Your task to perform on an android device: change timer sound Image 0: 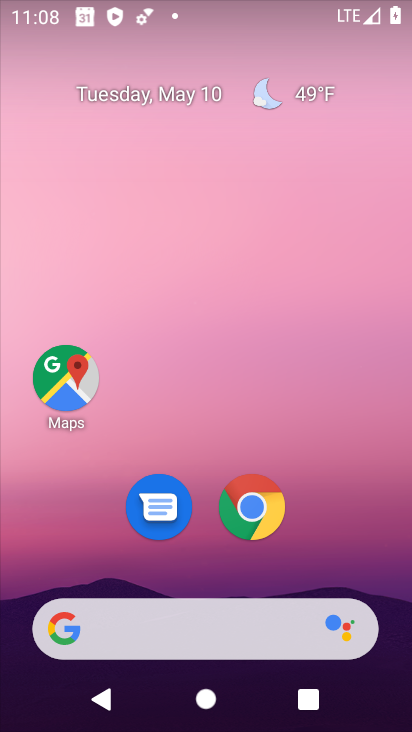
Step 0: drag from (334, 571) to (380, 103)
Your task to perform on an android device: change timer sound Image 1: 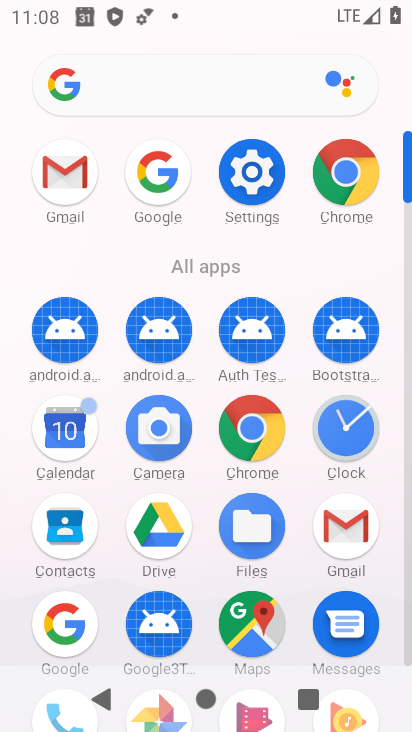
Step 1: click (341, 425)
Your task to perform on an android device: change timer sound Image 2: 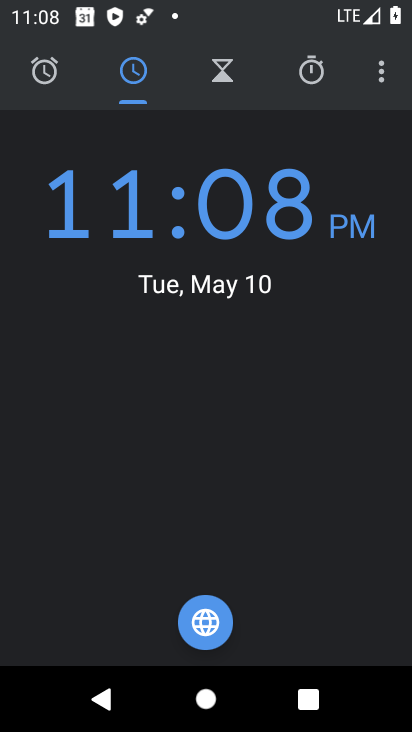
Step 2: click (375, 69)
Your task to perform on an android device: change timer sound Image 3: 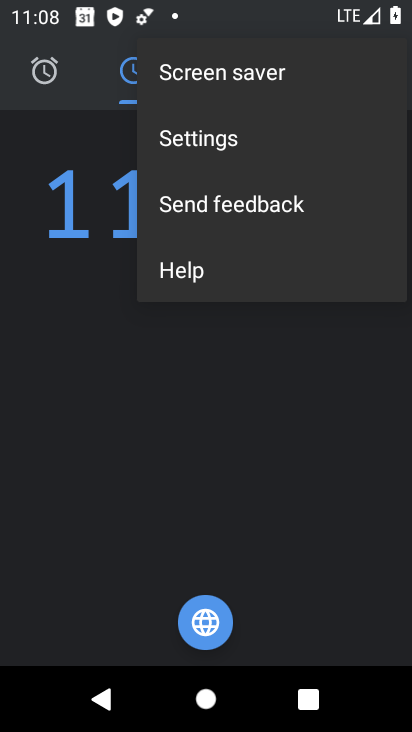
Step 3: click (243, 134)
Your task to perform on an android device: change timer sound Image 4: 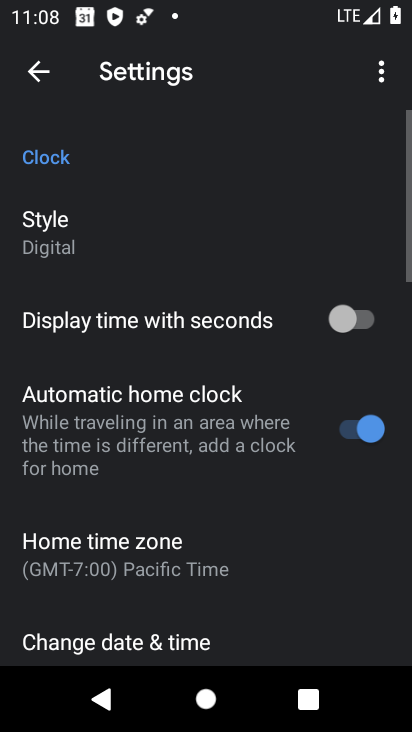
Step 4: drag from (161, 510) to (213, 146)
Your task to perform on an android device: change timer sound Image 5: 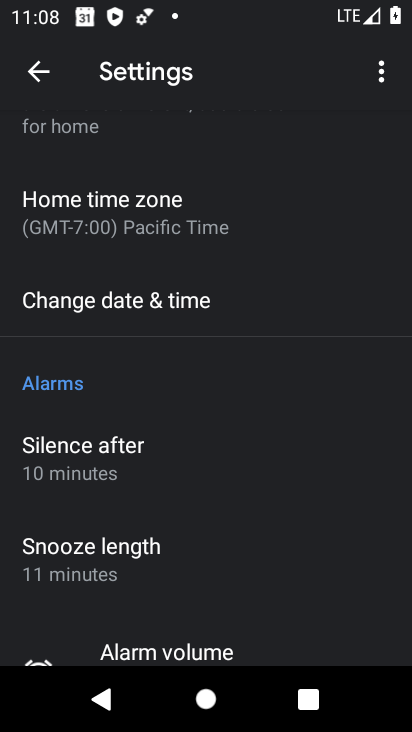
Step 5: drag from (172, 454) to (251, 169)
Your task to perform on an android device: change timer sound Image 6: 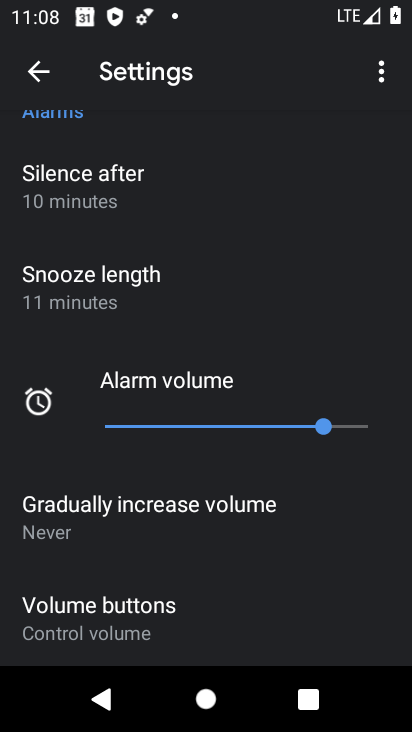
Step 6: drag from (142, 576) to (246, 225)
Your task to perform on an android device: change timer sound Image 7: 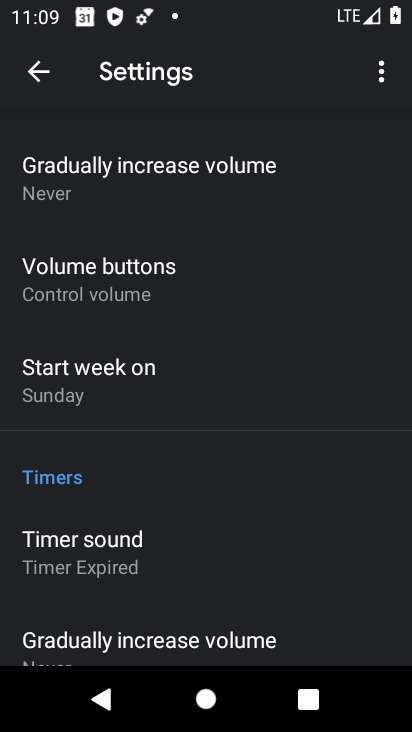
Step 7: click (132, 521)
Your task to perform on an android device: change timer sound Image 8: 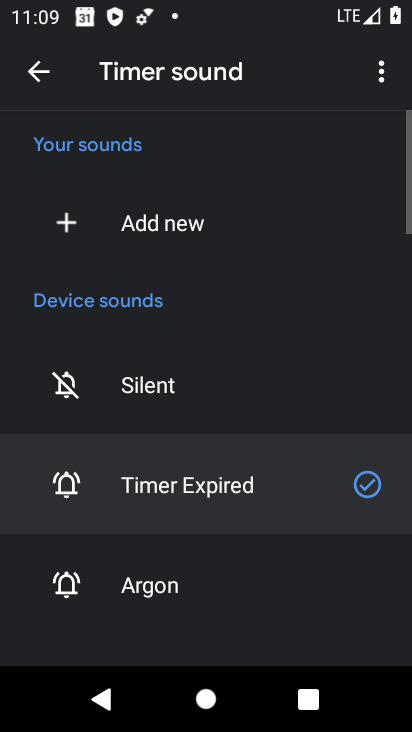
Step 8: click (85, 585)
Your task to perform on an android device: change timer sound Image 9: 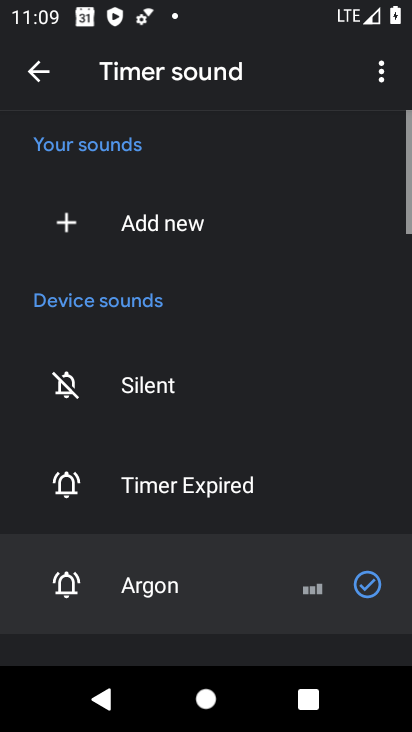
Step 9: task complete